Your task to perform on an android device: Search for "acer nitro" on bestbuy, select the first entry, and add it to the cart. Image 0: 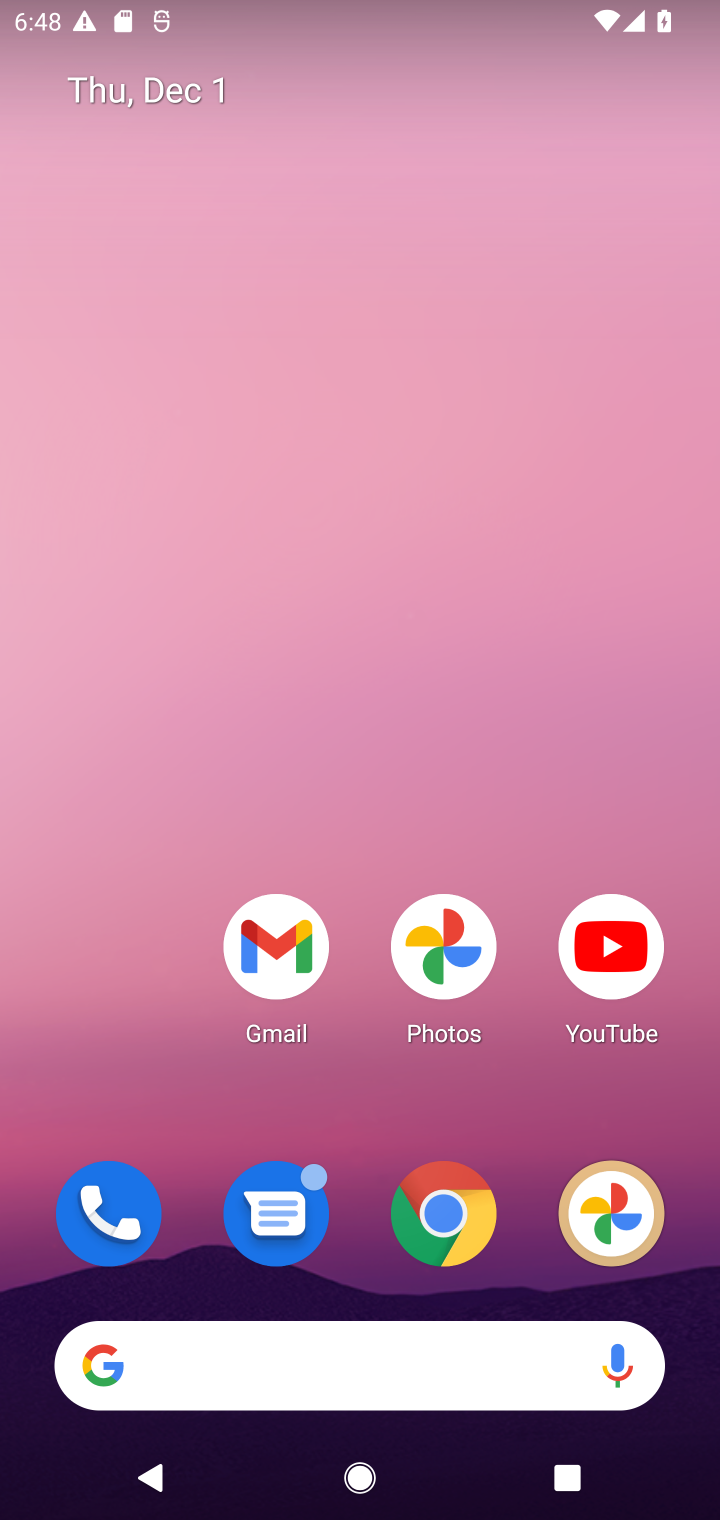
Step 0: click (327, 1386)
Your task to perform on an android device: Search for "acer nitro" on bestbuy, select the first entry, and add it to the cart. Image 1: 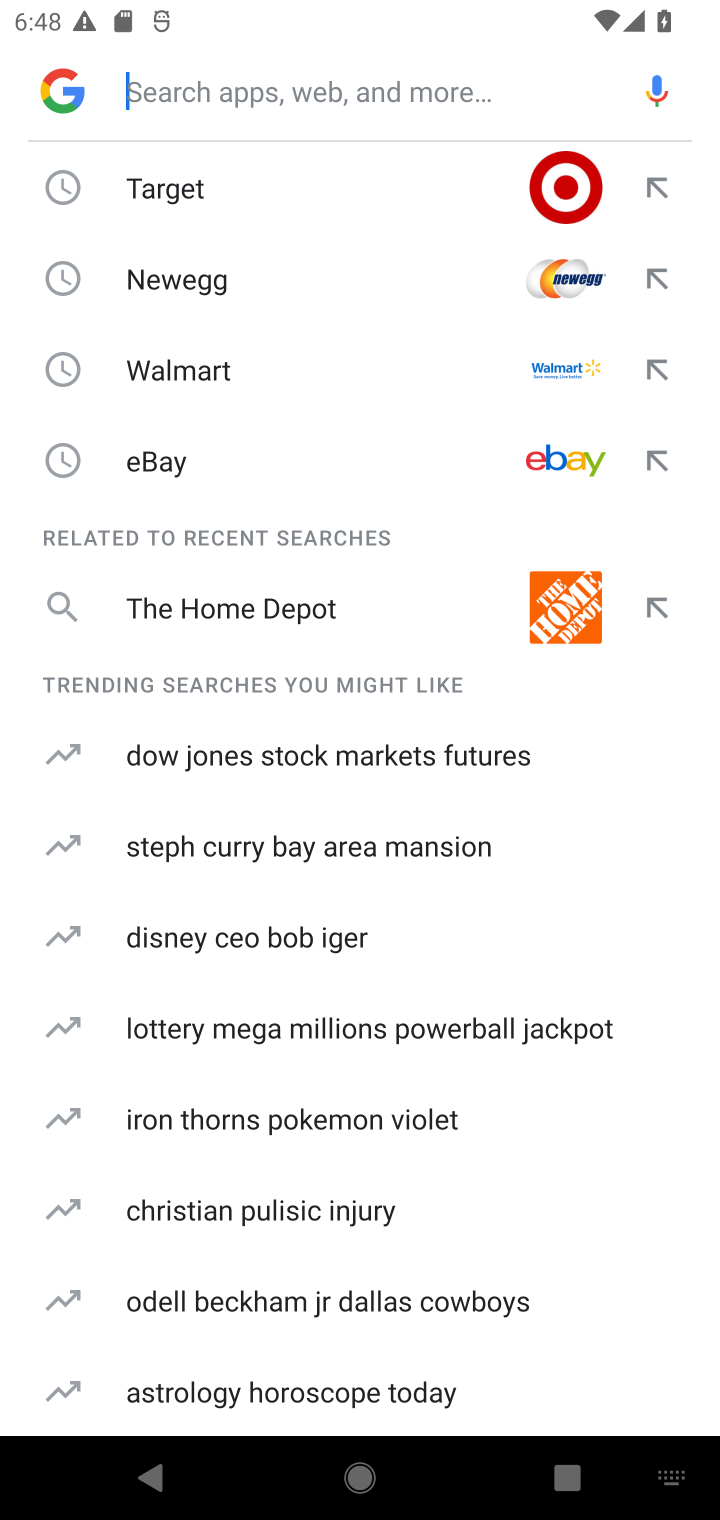
Step 1: type "bestbuy"
Your task to perform on an android device: Search for "acer nitro" on bestbuy, select the first entry, and add it to the cart. Image 2: 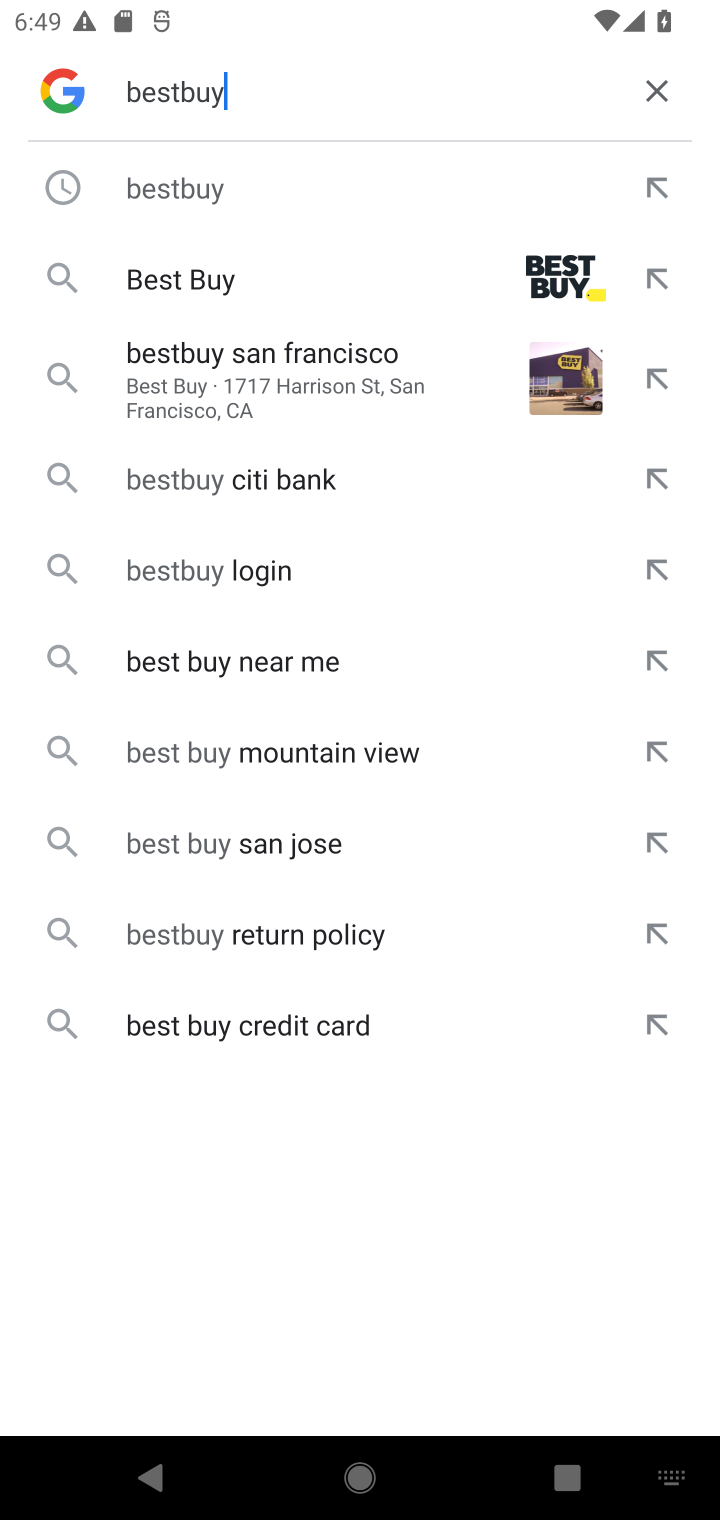
Step 2: click (455, 292)
Your task to perform on an android device: Search for "acer nitro" on bestbuy, select the first entry, and add it to the cart. Image 3: 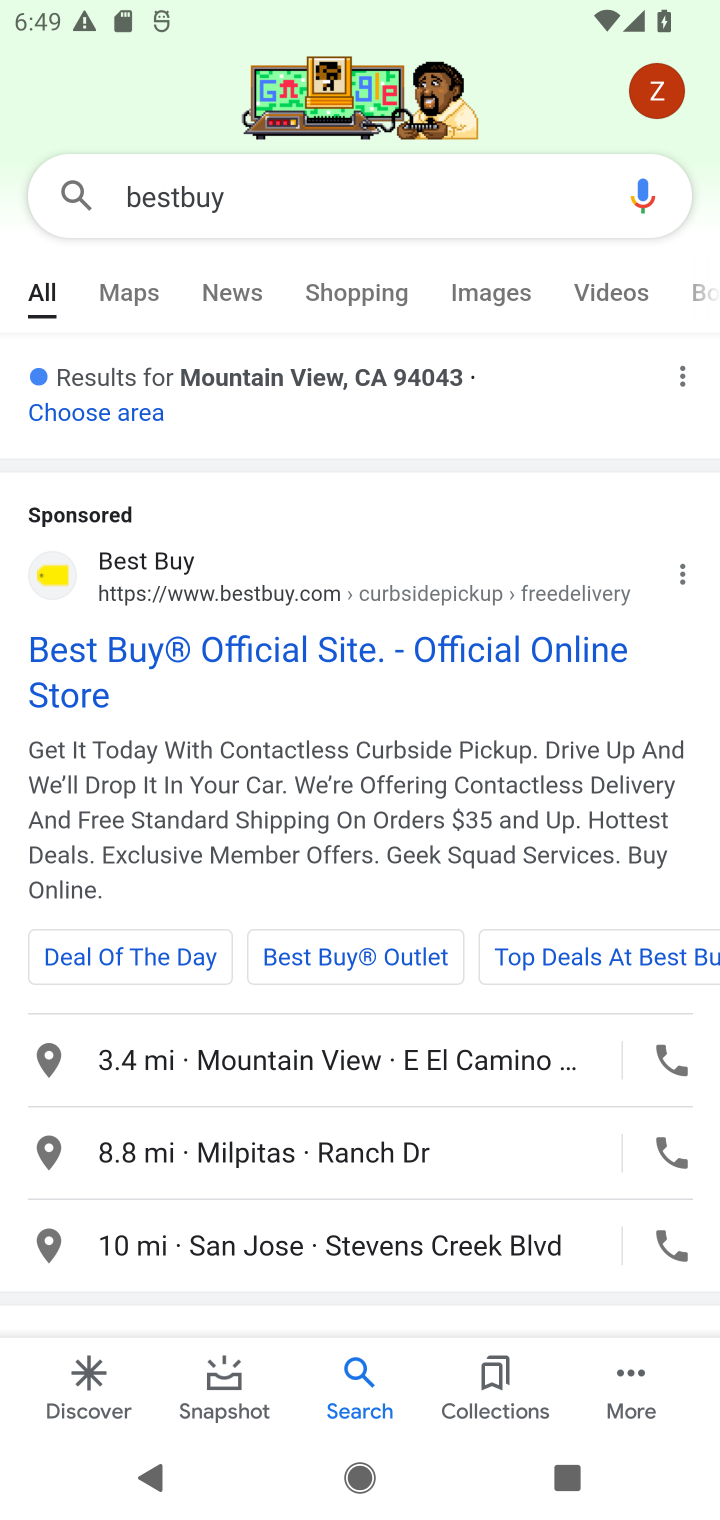
Step 3: click (193, 675)
Your task to perform on an android device: Search for "acer nitro" on bestbuy, select the first entry, and add it to the cart. Image 4: 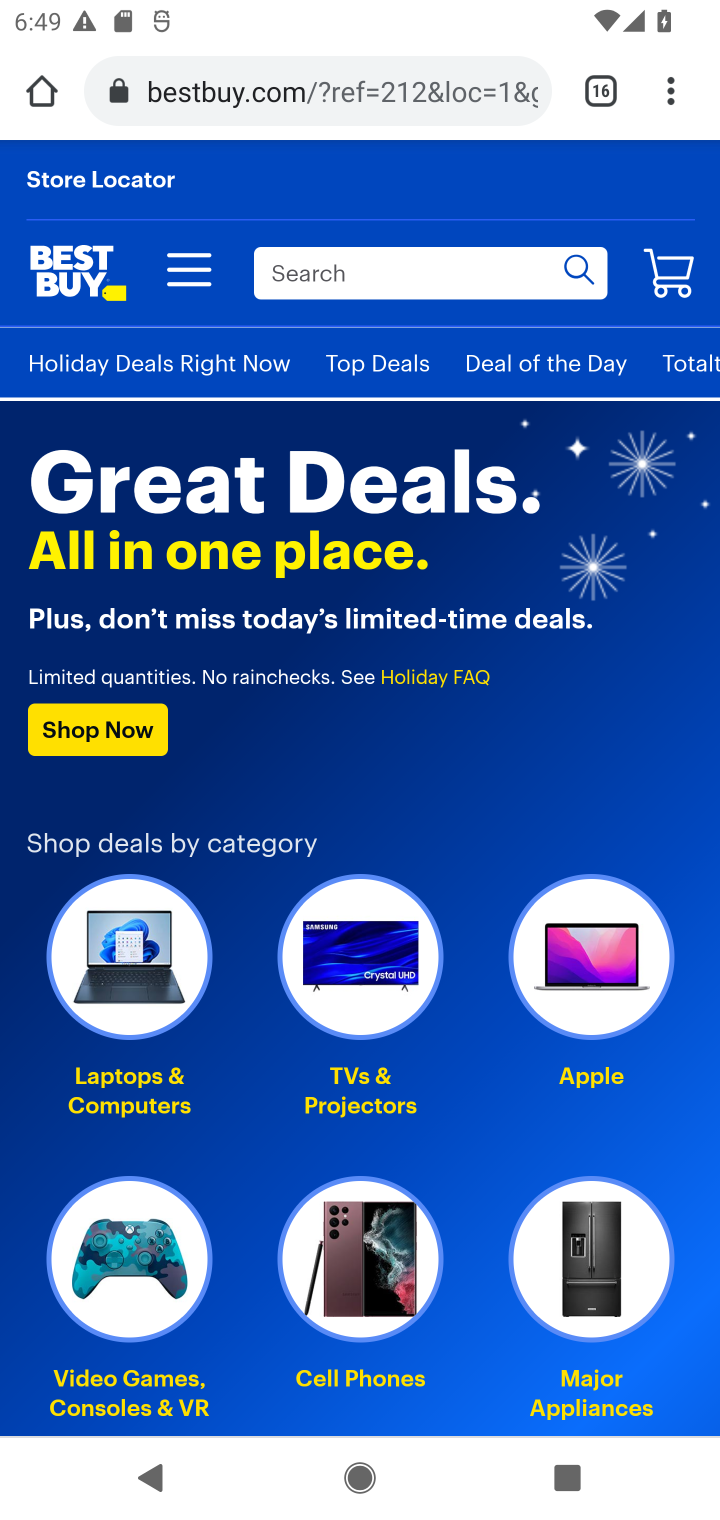
Step 4: click (475, 262)
Your task to perform on an android device: Search for "acer nitro" on bestbuy, select the first entry, and add it to the cart. Image 5: 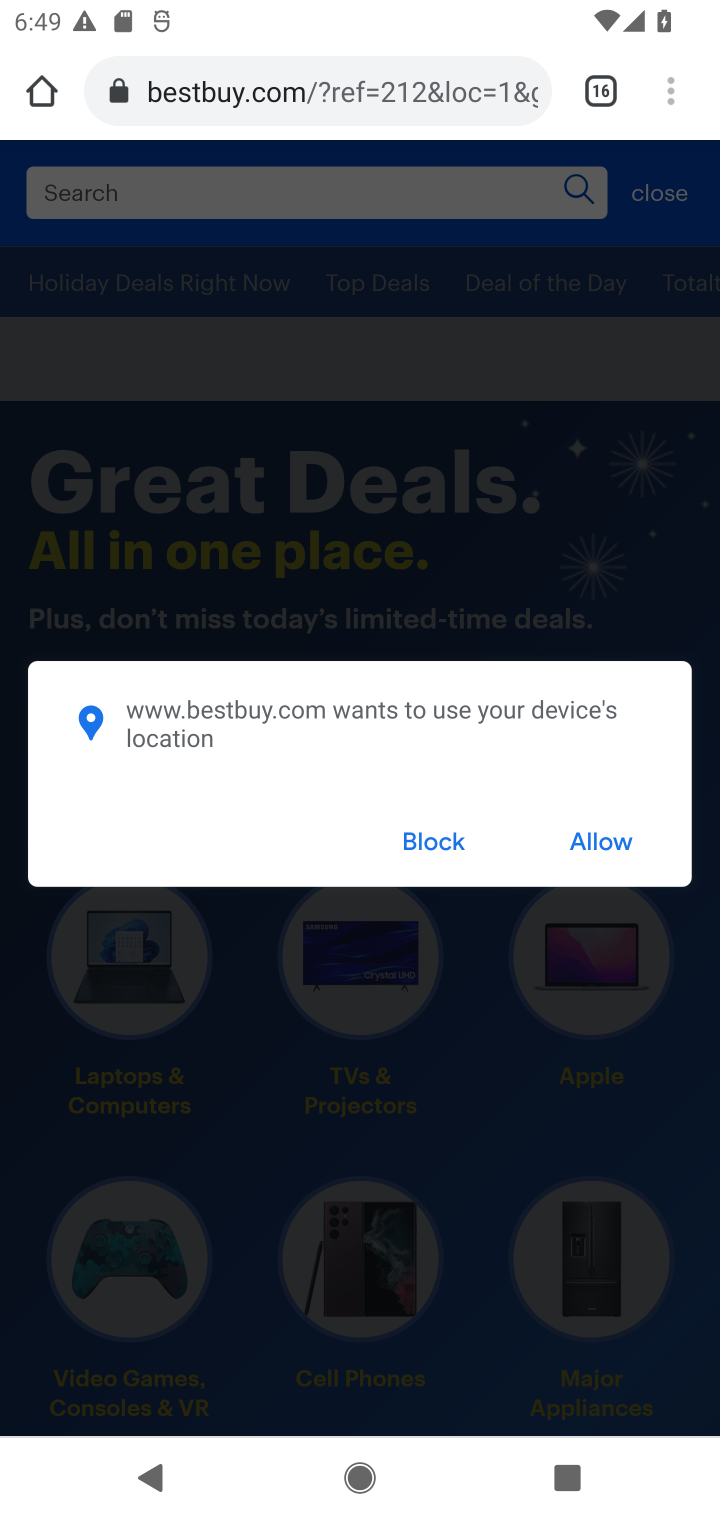
Step 5: type "acer nitro"
Your task to perform on an android device: Search for "acer nitro" on bestbuy, select the first entry, and add it to the cart. Image 6: 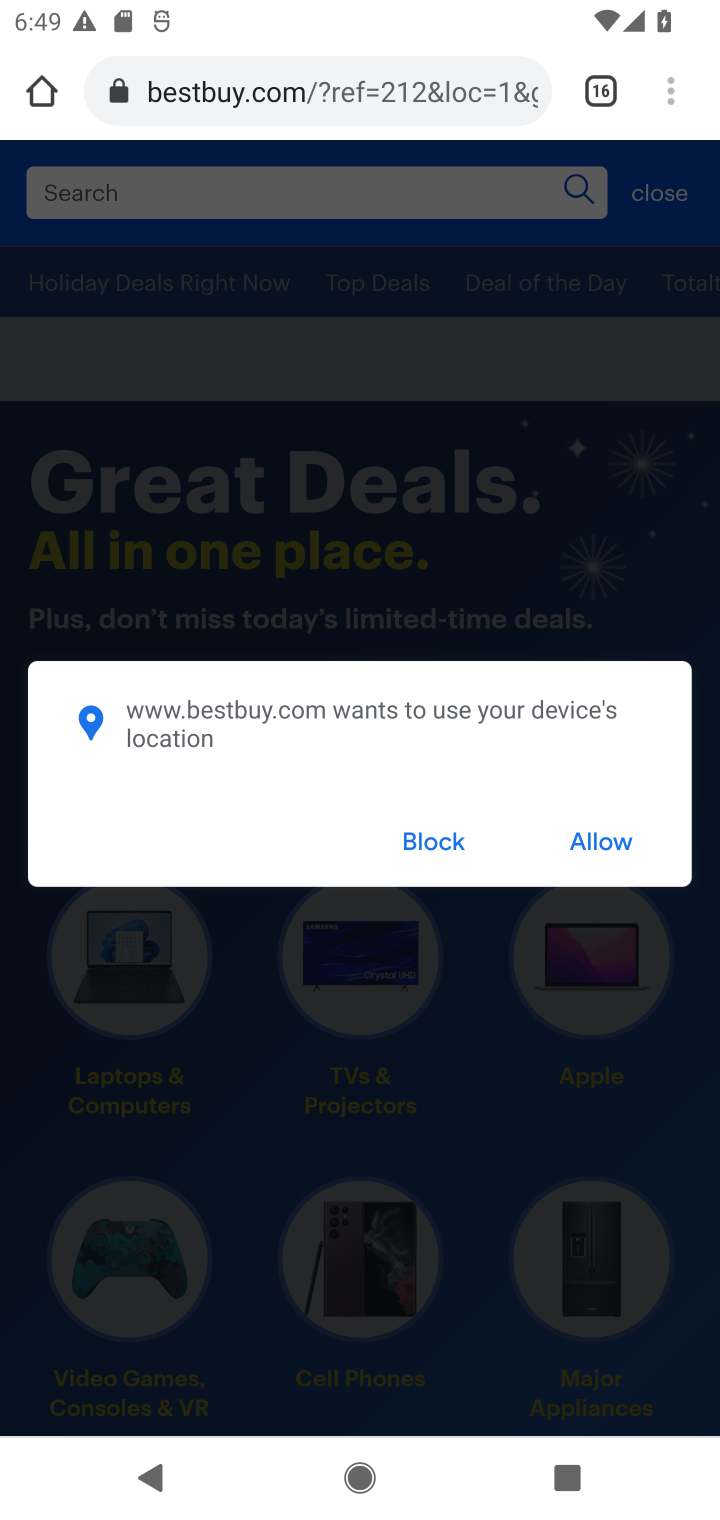
Step 6: click (438, 848)
Your task to perform on an android device: Search for "acer nitro" on bestbuy, select the first entry, and add it to the cart. Image 7: 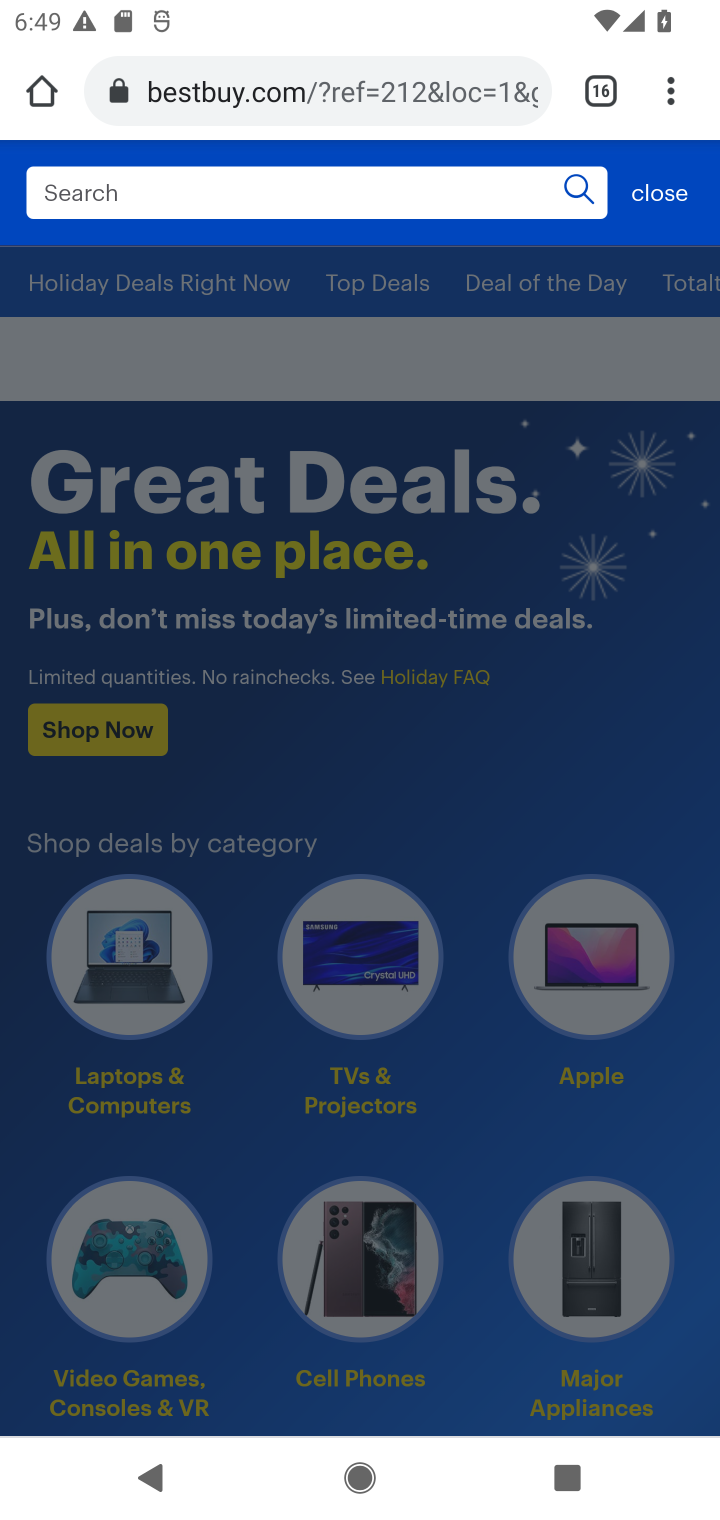
Step 7: click (205, 195)
Your task to perform on an android device: Search for "acer nitro" on bestbuy, select the first entry, and add it to the cart. Image 8: 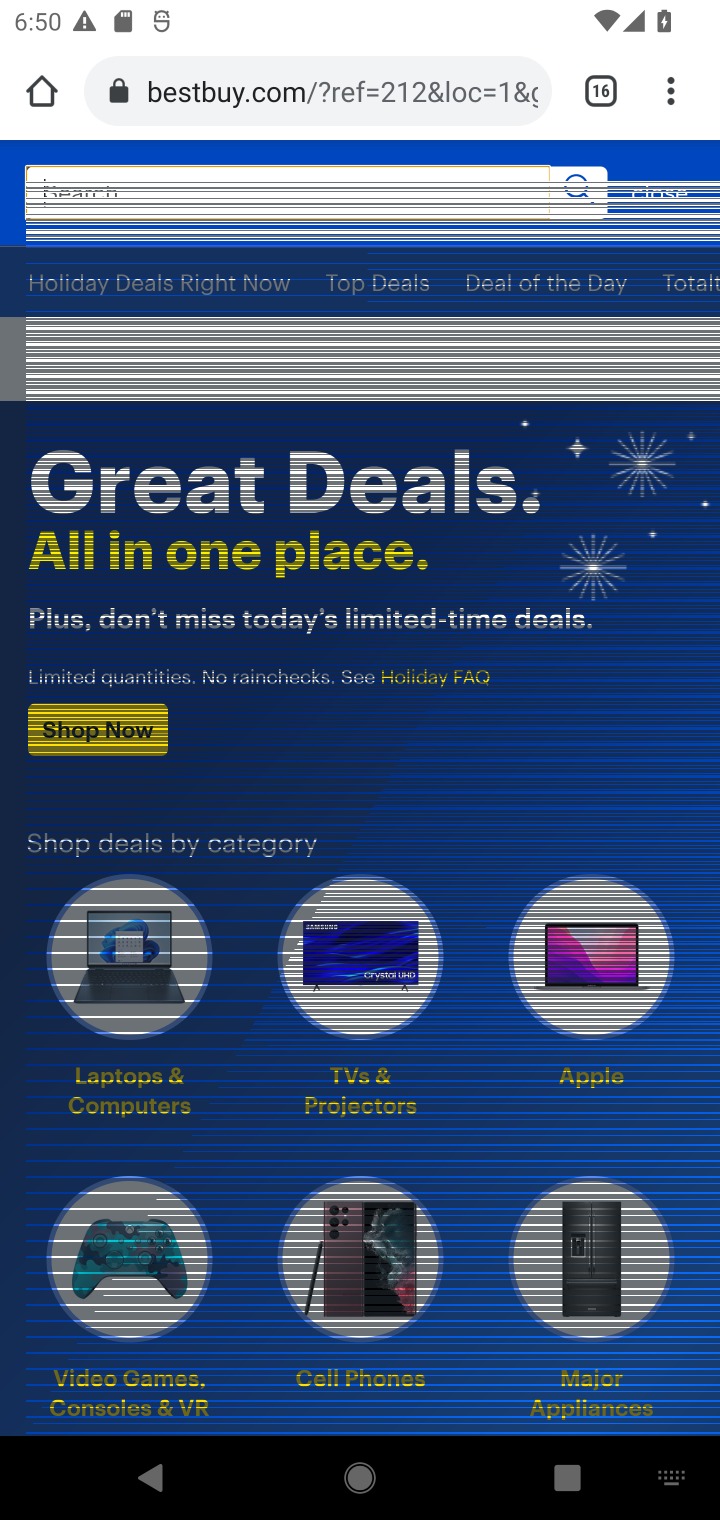
Step 8: type "acer nito"
Your task to perform on an android device: Search for "acer nitro" on bestbuy, select the first entry, and add it to the cart. Image 9: 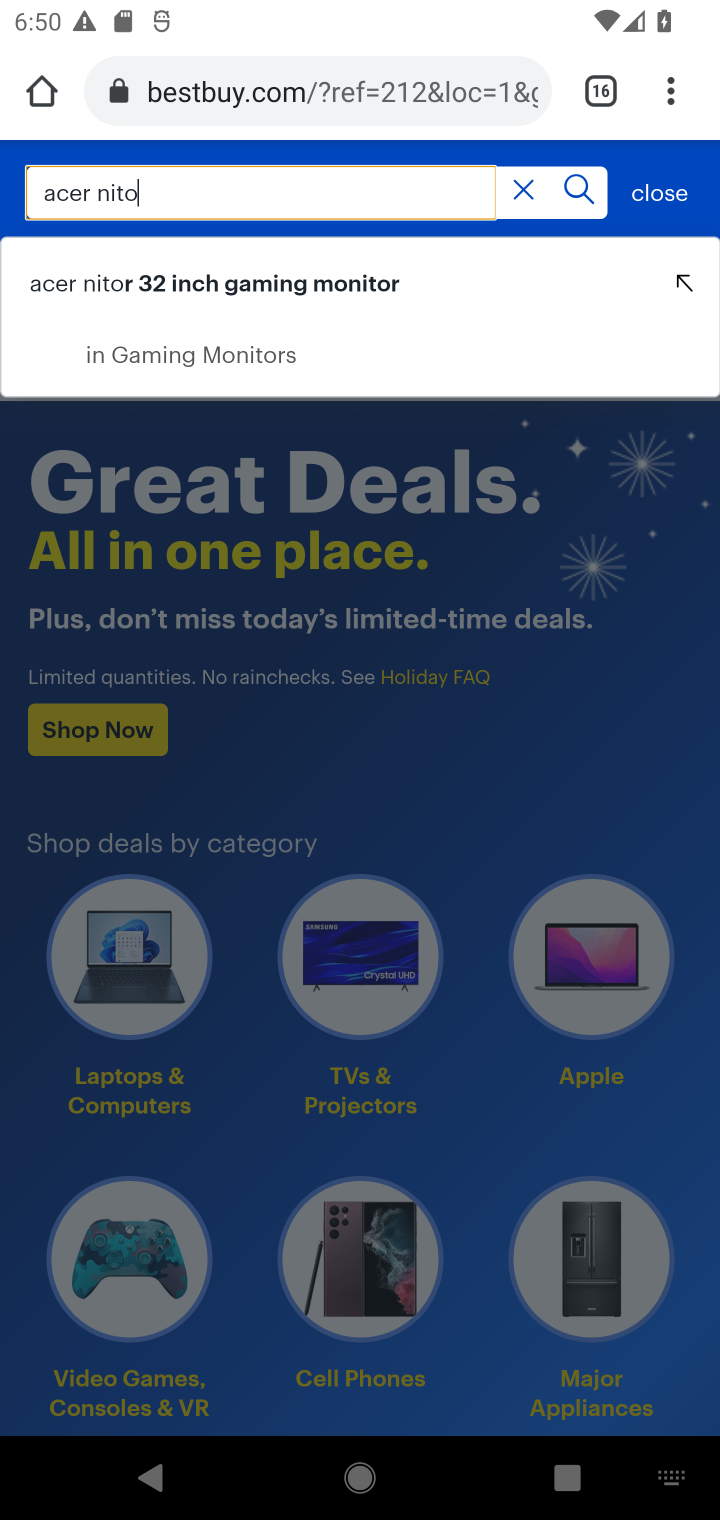
Step 9: task complete